Your task to perform on an android device: Go to internet settings Image 0: 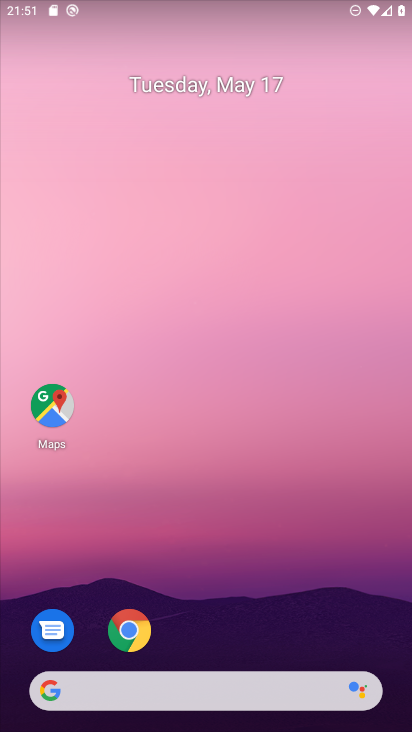
Step 0: drag from (357, 628) to (358, 259)
Your task to perform on an android device: Go to internet settings Image 1: 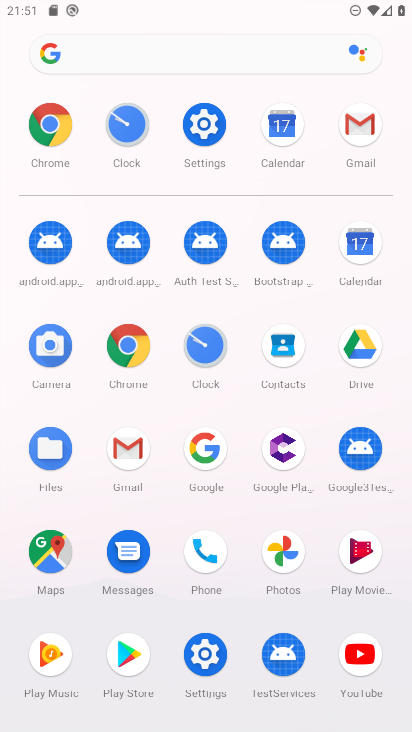
Step 1: click (216, 115)
Your task to perform on an android device: Go to internet settings Image 2: 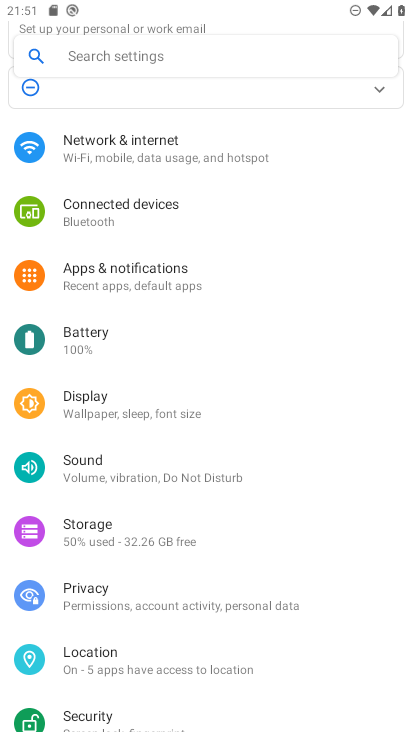
Step 2: drag from (317, 485) to (339, 327)
Your task to perform on an android device: Go to internet settings Image 3: 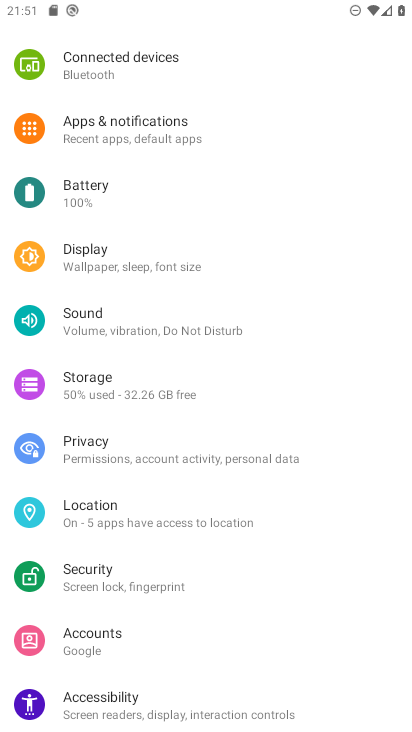
Step 3: drag from (330, 570) to (344, 457)
Your task to perform on an android device: Go to internet settings Image 4: 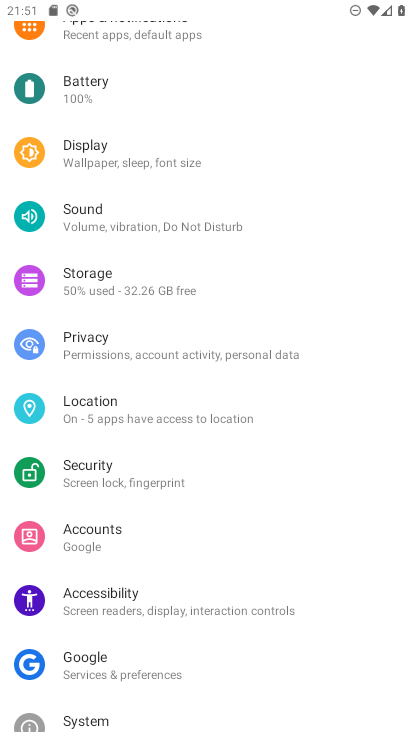
Step 4: drag from (315, 532) to (340, 446)
Your task to perform on an android device: Go to internet settings Image 5: 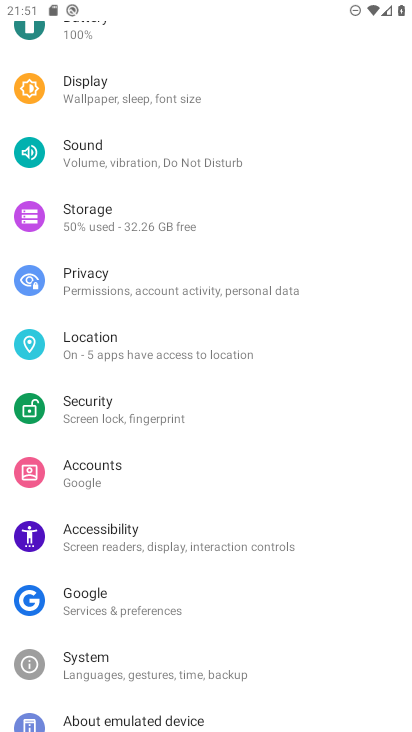
Step 5: drag from (331, 573) to (339, 428)
Your task to perform on an android device: Go to internet settings Image 6: 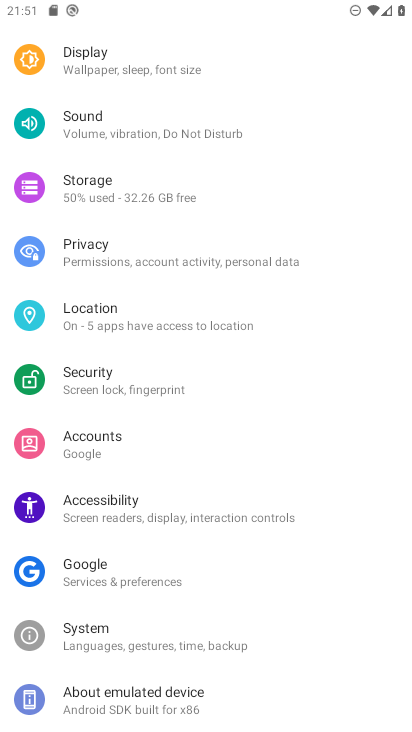
Step 6: drag from (347, 573) to (359, 451)
Your task to perform on an android device: Go to internet settings Image 7: 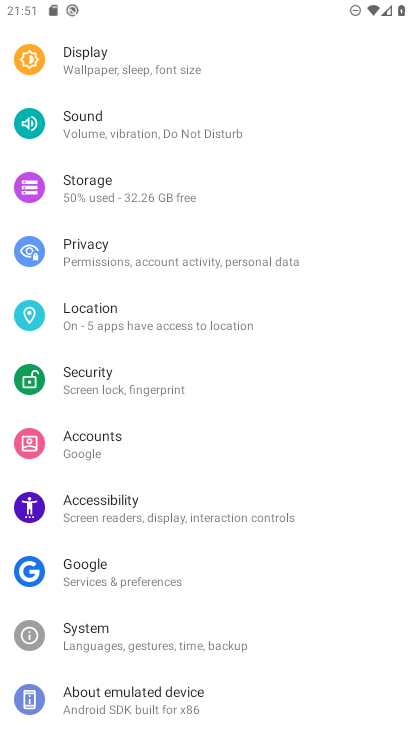
Step 7: drag from (366, 283) to (340, 439)
Your task to perform on an android device: Go to internet settings Image 8: 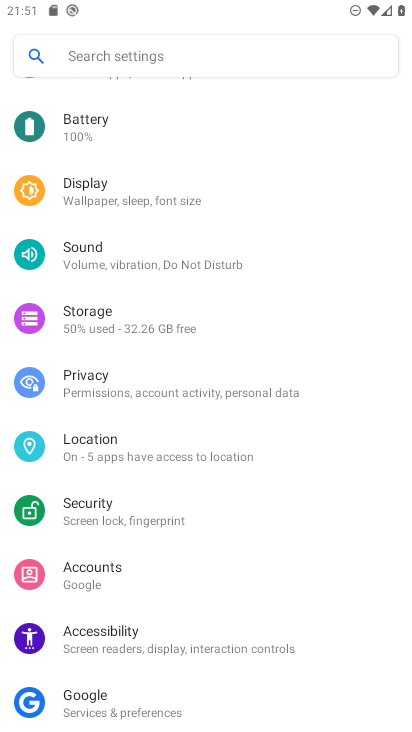
Step 8: drag from (338, 228) to (339, 397)
Your task to perform on an android device: Go to internet settings Image 9: 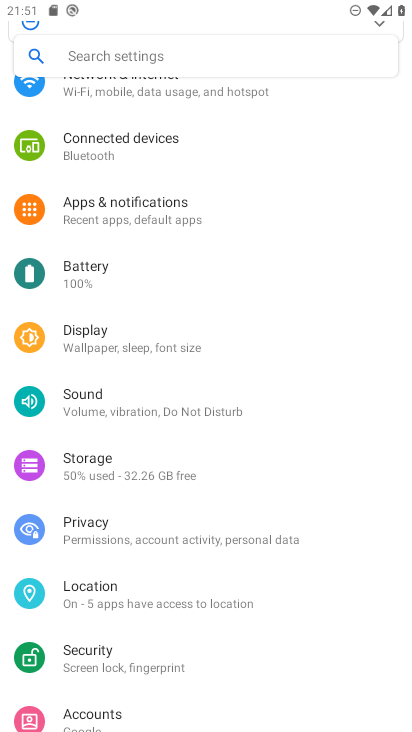
Step 9: drag from (329, 191) to (322, 407)
Your task to perform on an android device: Go to internet settings Image 10: 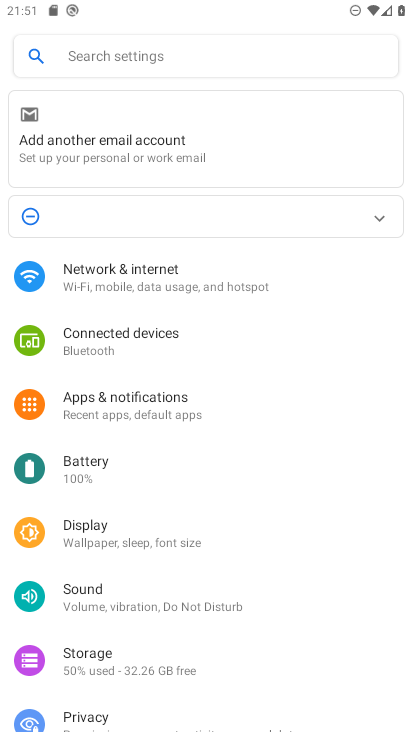
Step 10: click (255, 280)
Your task to perform on an android device: Go to internet settings Image 11: 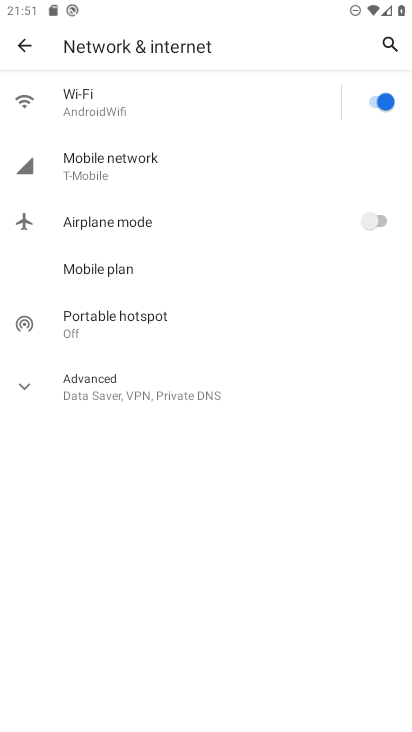
Step 11: task complete